Your task to perform on an android device: Open internet settings Image 0: 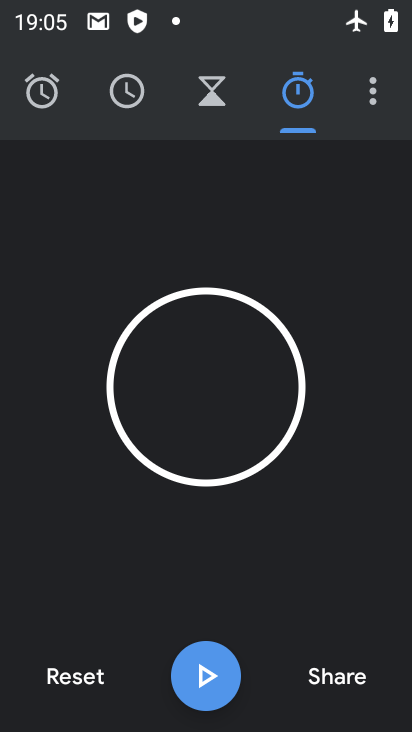
Step 0: press home button
Your task to perform on an android device: Open internet settings Image 1: 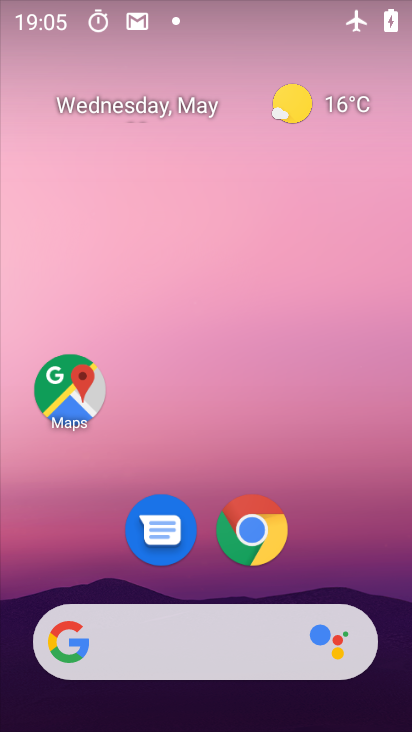
Step 1: drag from (193, 575) to (241, 261)
Your task to perform on an android device: Open internet settings Image 2: 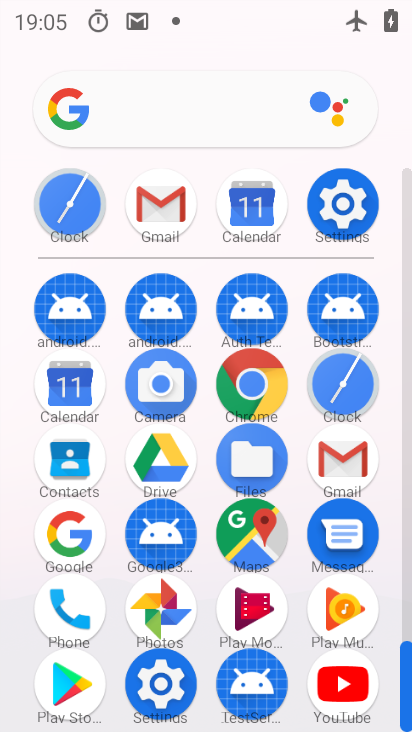
Step 2: click (347, 197)
Your task to perform on an android device: Open internet settings Image 3: 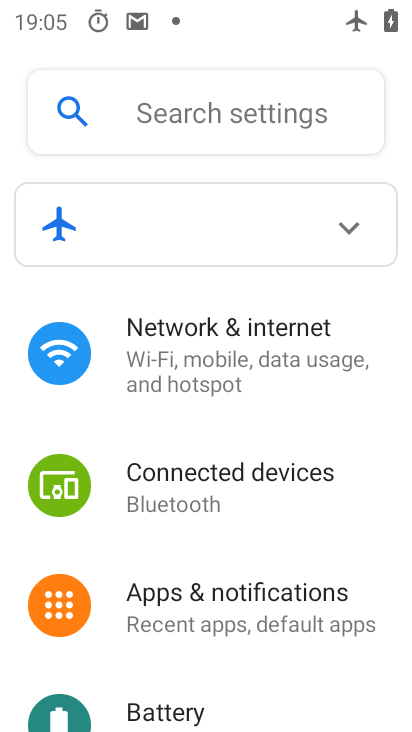
Step 3: click (292, 347)
Your task to perform on an android device: Open internet settings Image 4: 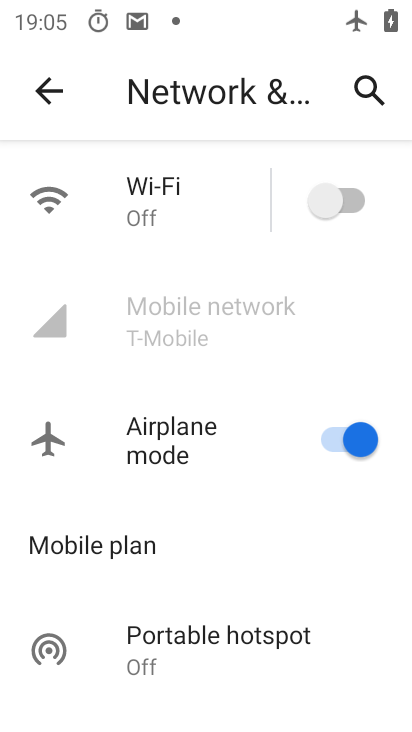
Step 4: task complete